Your task to perform on an android device: What's the price of the new iPhone on eBay? Image 0: 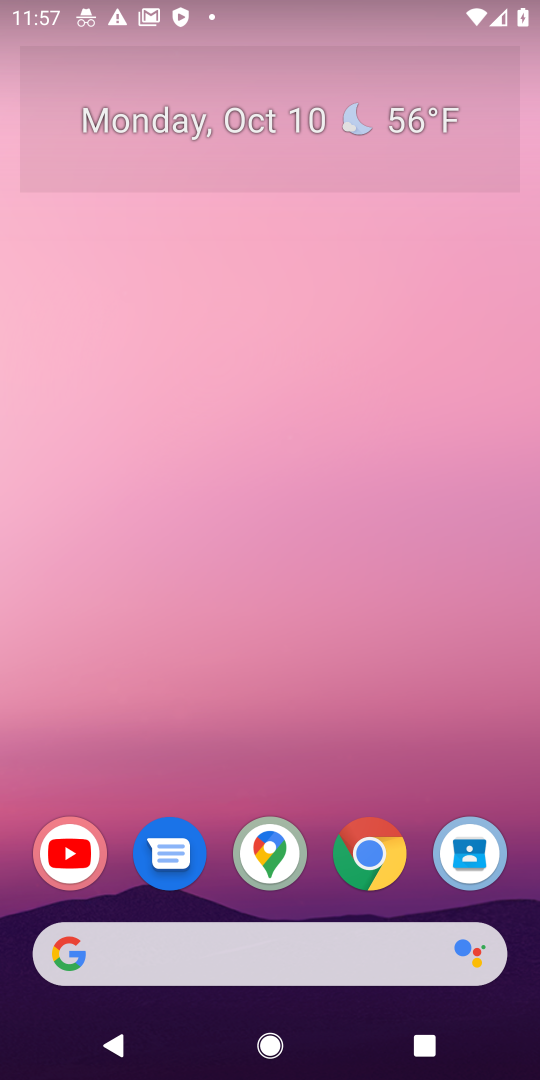
Step 0: press home button
Your task to perform on an android device: What's the price of the new iPhone on eBay? Image 1: 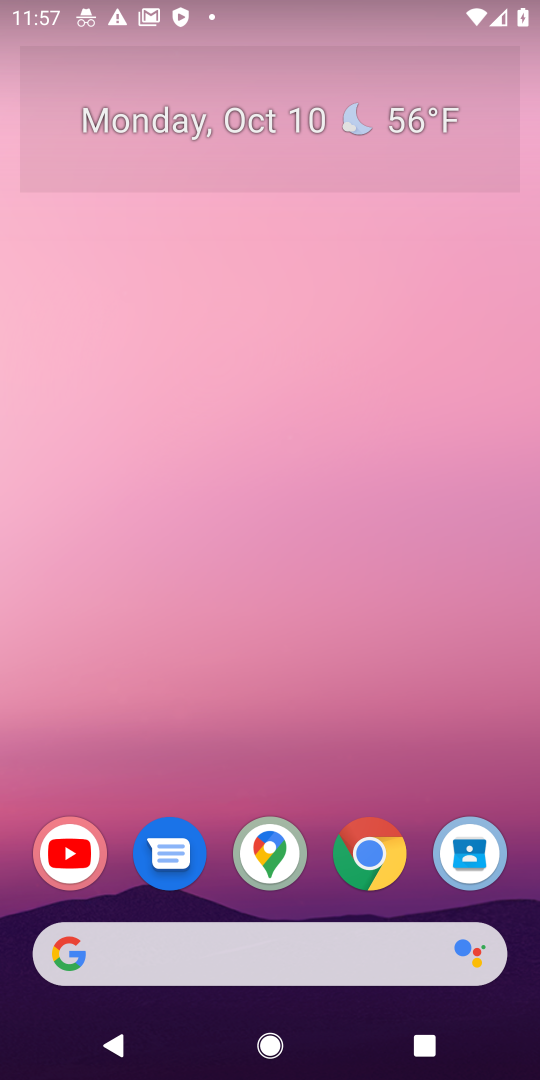
Step 1: click (342, 952)
Your task to perform on an android device: What's the price of the new iPhone on eBay? Image 2: 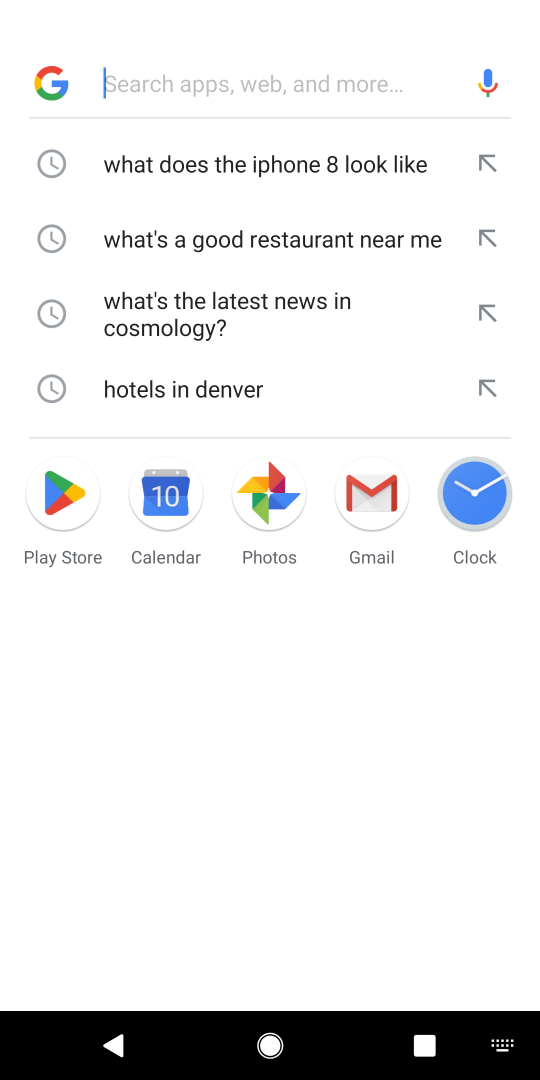
Step 2: type "What's the price of the new iPhone on eBay"
Your task to perform on an android device: What's the price of the new iPhone on eBay? Image 3: 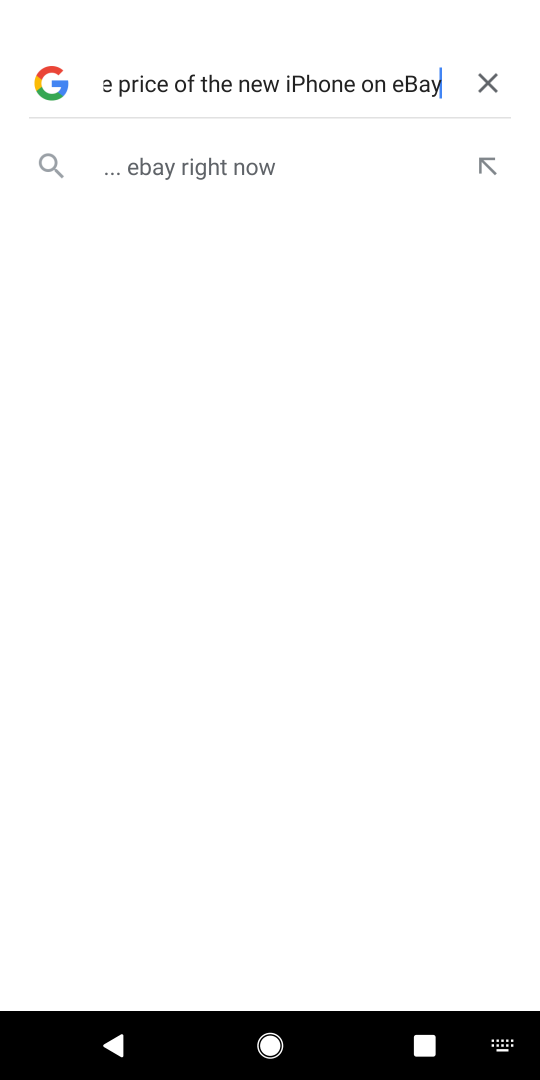
Step 3: press enter
Your task to perform on an android device: What's the price of the new iPhone on eBay? Image 4: 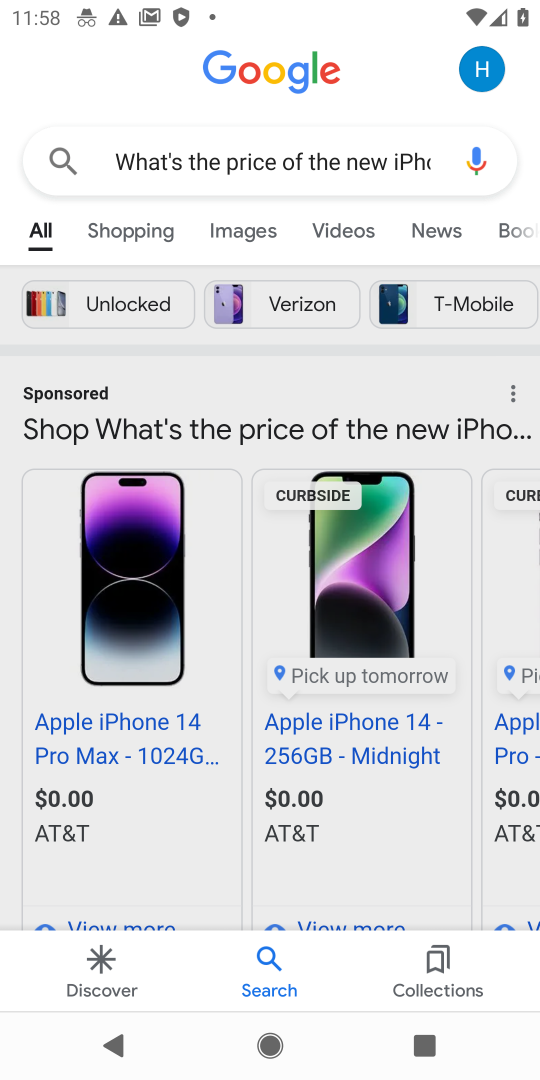
Step 4: drag from (348, 844) to (353, 565)
Your task to perform on an android device: What's the price of the new iPhone on eBay? Image 5: 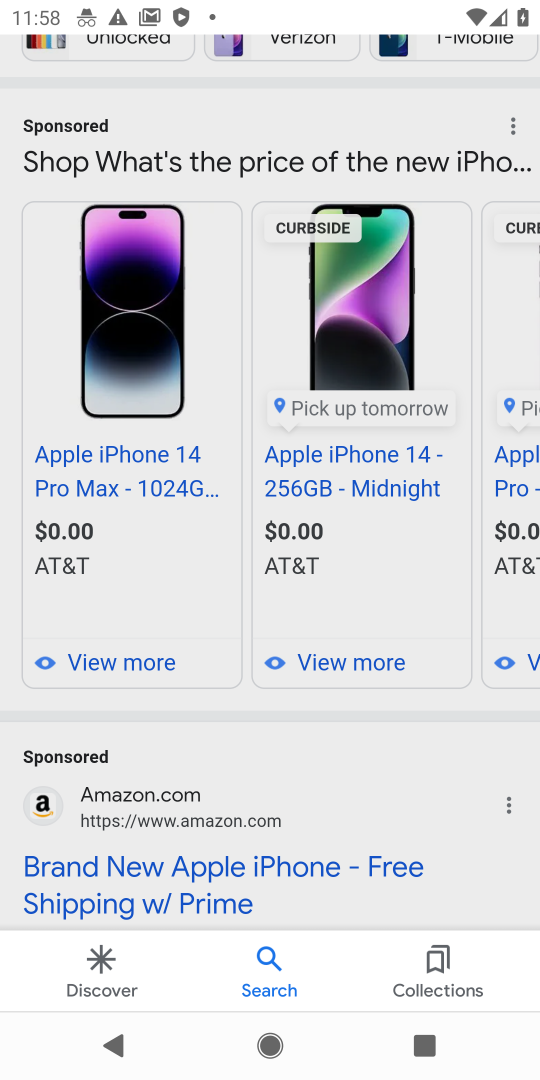
Step 5: drag from (387, 835) to (393, 505)
Your task to perform on an android device: What's the price of the new iPhone on eBay? Image 6: 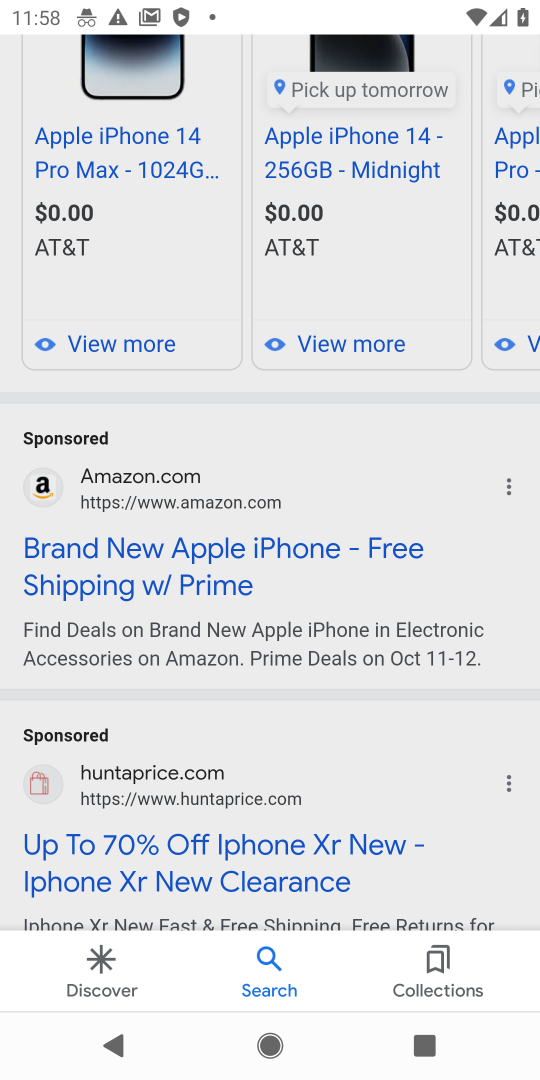
Step 6: drag from (344, 825) to (388, 468)
Your task to perform on an android device: What's the price of the new iPhone on eBay? Image 7: 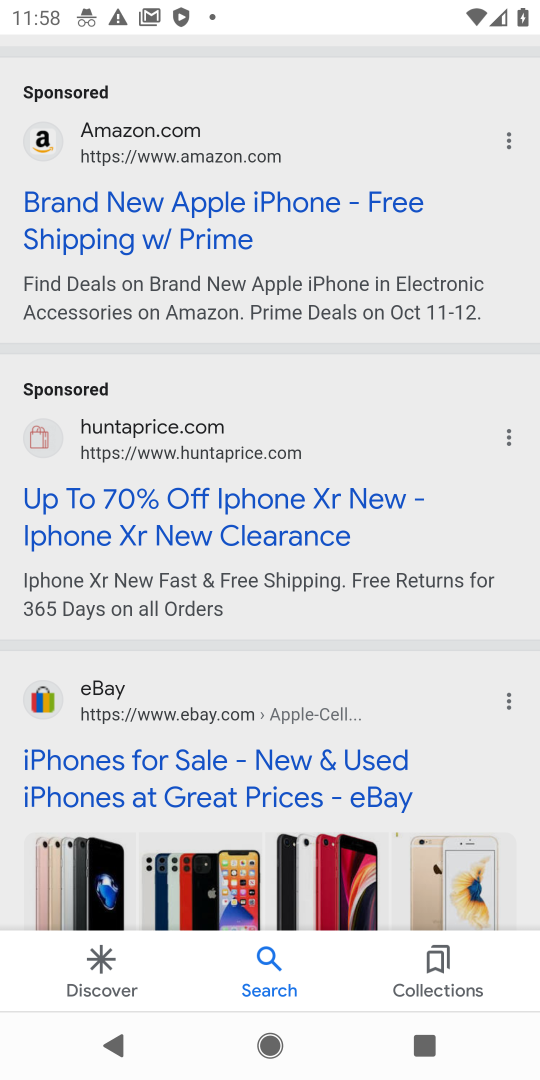
Step 7: click (314, 791)
Your task to perform on an android device: What's the price of the new iPhone on eBay? Image 8: 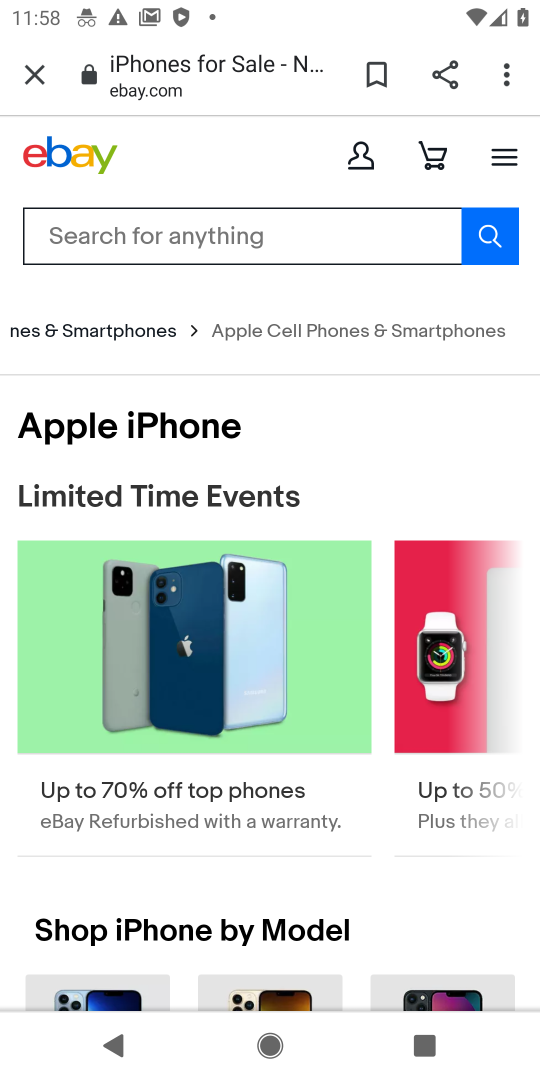
Step 8: task complete